Your task to perform on an android device: Search for Italian restaurants on Maps Image 0: 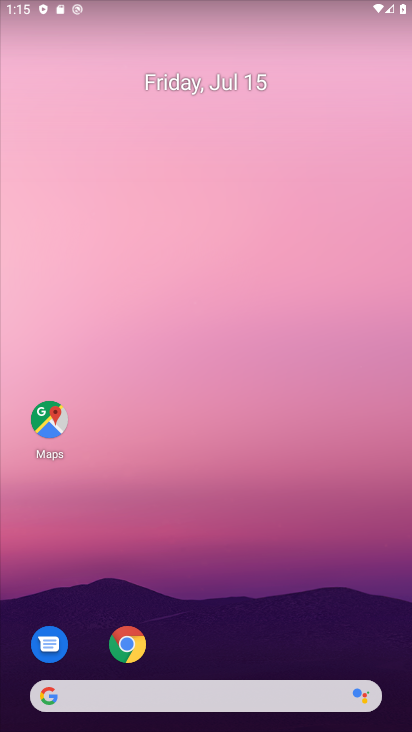
Step 0: drag from (377, 609) to (228, 105)
Your task to perform on an android device: Search for Italian restaurants on Maps Image 1: 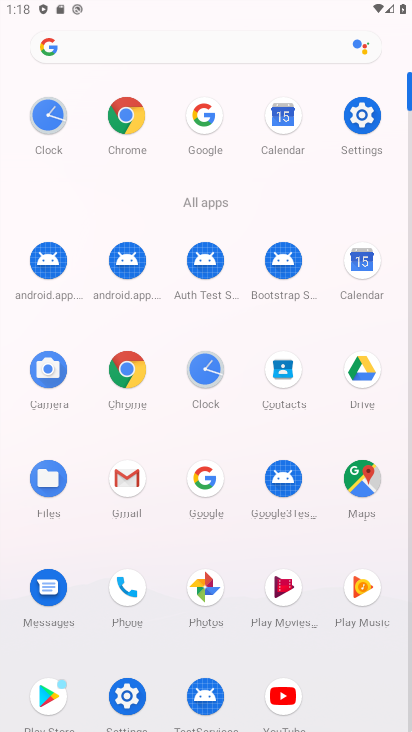
Step 1: click (367, 487)
Your task to perform on an android device: Search for Italian restaurants on Maps Image 2: 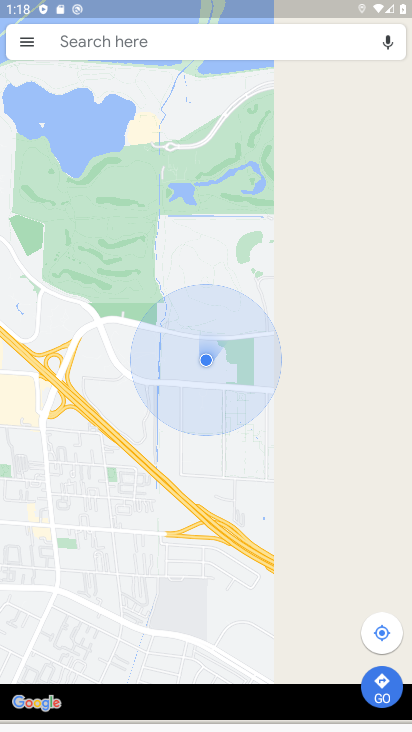
Step 2: click (139, 44)
Your task to perform on an android device: Search for Italian restaurants on Maps Image 3: 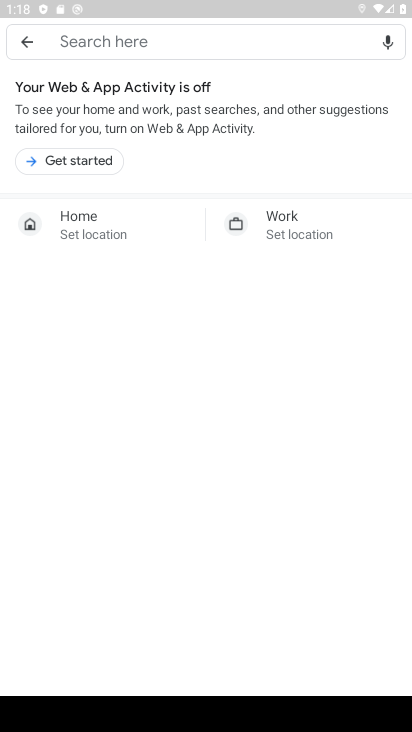
Step 3: click (78, 170)
Your task to perform on an android device: Search for Italian restaurants on Maps Image 4: 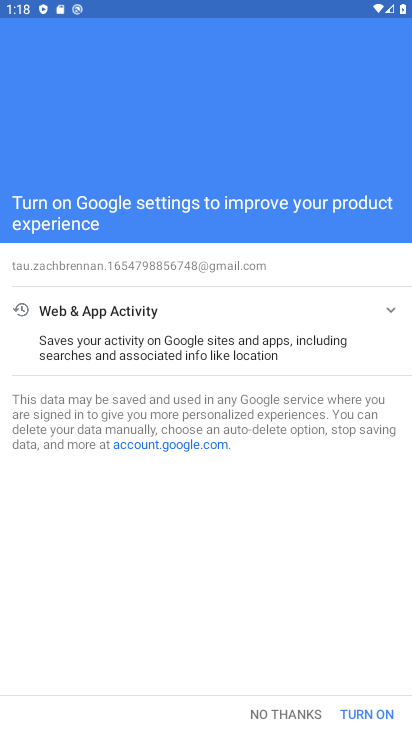
Step 4: click (374, 717)
Your task to perform on an android device: Search for Italian restaurants on Maps Image 5: 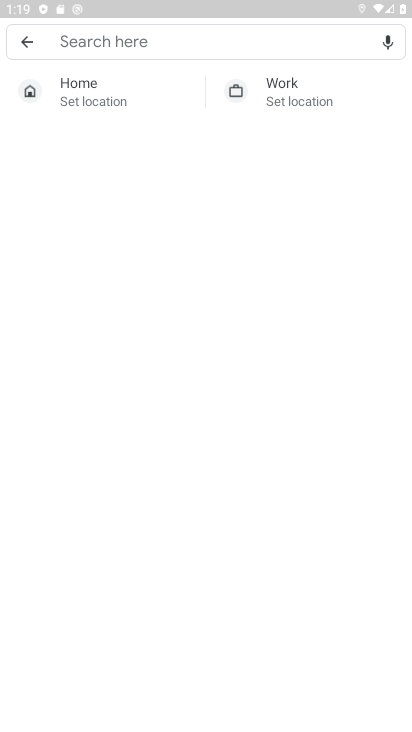
Step 5: task complete